Your task to perform on an android device: turn off picture-in-picture Image 0: 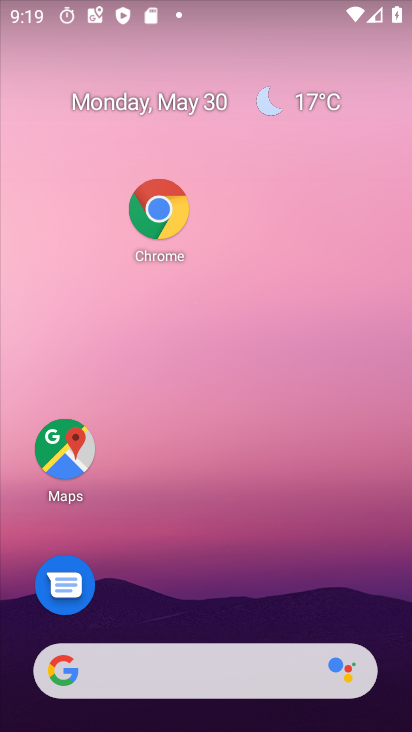
Step 0: drag from (258, 566) to (407, 34)
Your task to perform on an android device: turn off picture-in-picture Image 1: 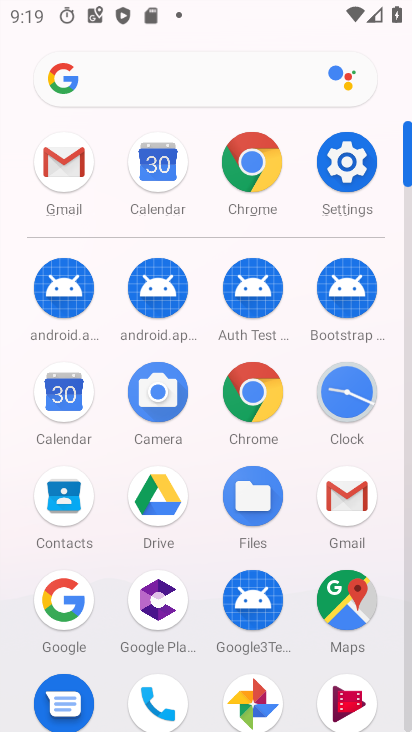
Step 1: click (345, 167)
Your task to perform on an android device: turn off picture-in-picture Image 2: 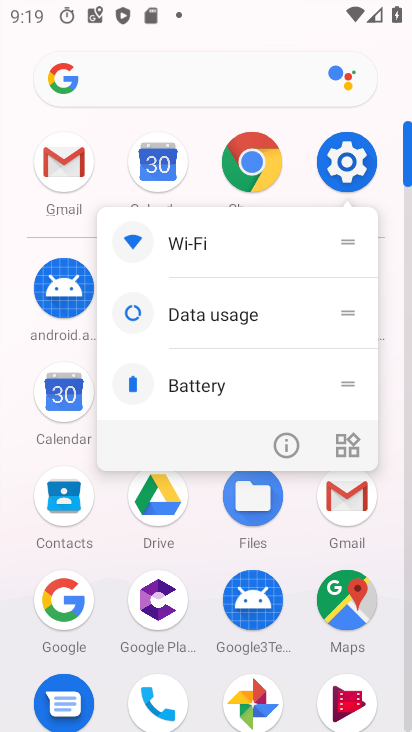
Step 2: click (290, 455)
Your task to perform on an android device: turn off picture-in-picture Image 3: 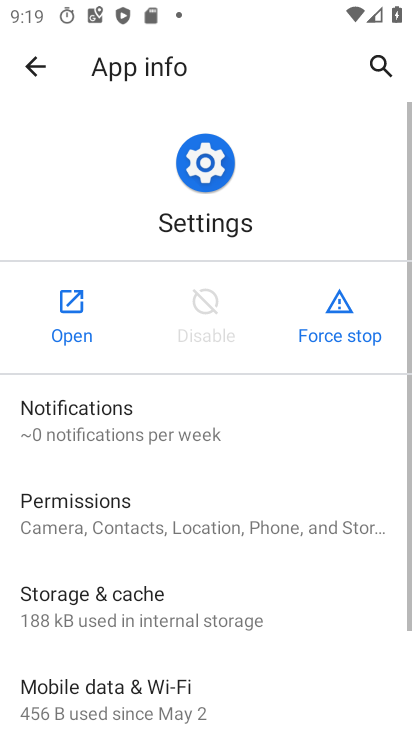
Step 3: click (66, 286)
Your task to perform on an android device: turn off picture-in-picture Image 4: 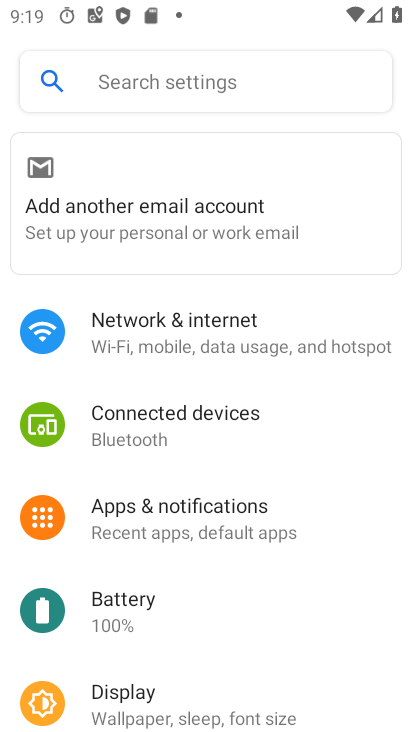
Step 4: drag from (306, 377) to (375, 106)
Your task to perform on an android device: turn off picture-in-picture Image 5: 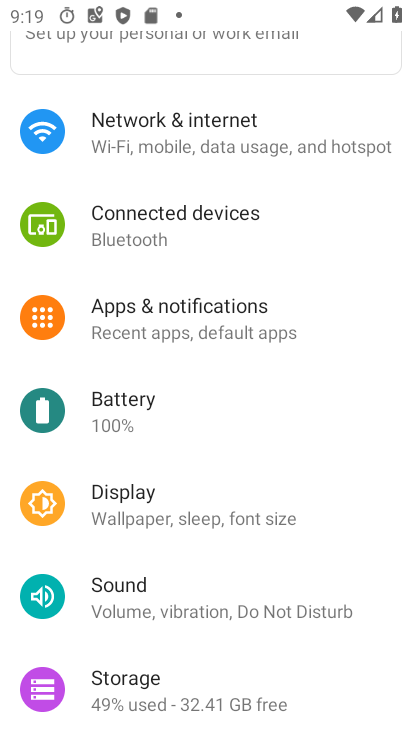
Step 5: click (191, 318)
Your task to perform on an android device: turn off picture-in-picture Image 6: 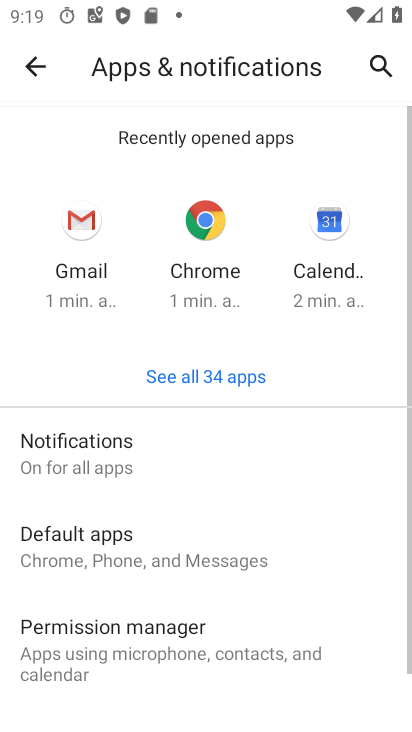
Step 6: drag from (242, 415) to (325, 152)
Your task to perform on an android device: turn off picture-in-picture Image 7: 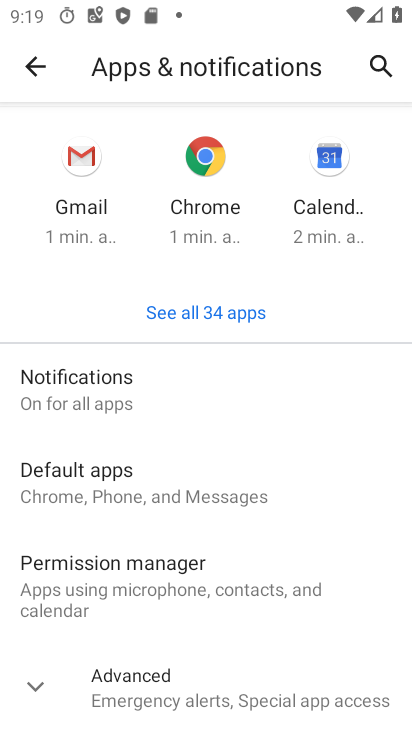
Step 7: drag from (137, 697) to (383, 42)
Your task to perform on an android device: turn off picture-in-picture Image 8: 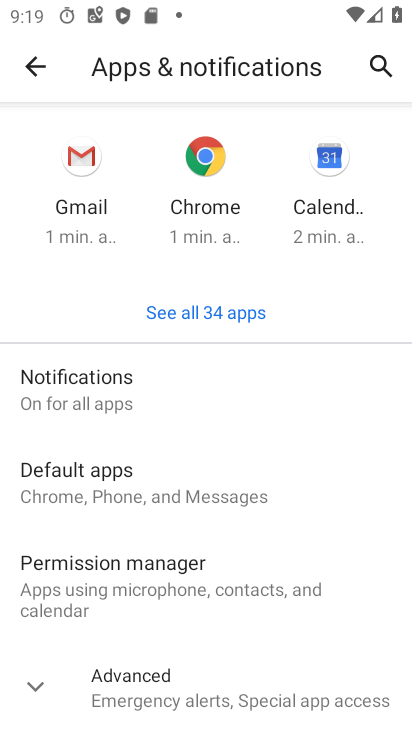
Step 8: drag from (191, 584) to (276, 234)
Your task to perform on an android device: turn off picture-in-picture Image 9: 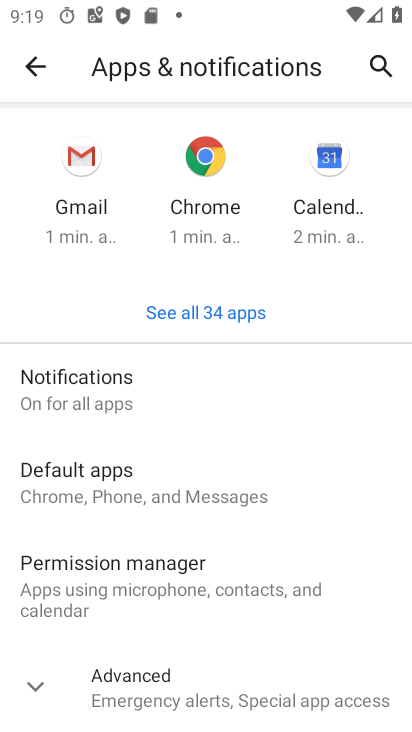
Step 9: click (157, 678)
Your task to perform on an android device: turn off picture-in-picture Image 10: 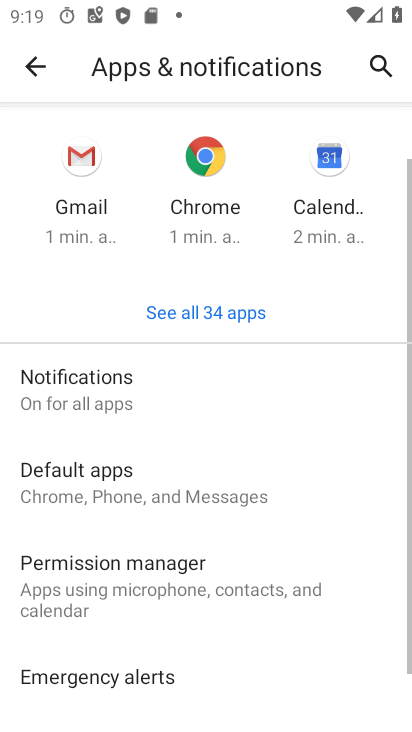
Step 10: drag from (210, 455) to (408, 9)
Your task to perform on an android device: turn off picture-in-picture Image 11: 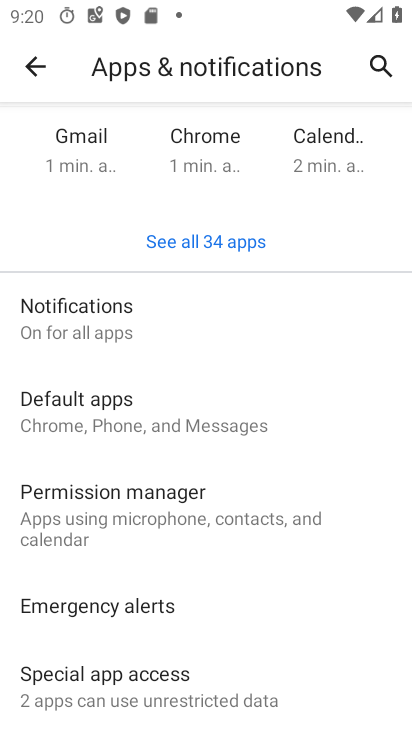
Step 11: click (121, 698)
Your task to perform on an android device: turn off picture-in-picture Image 12: 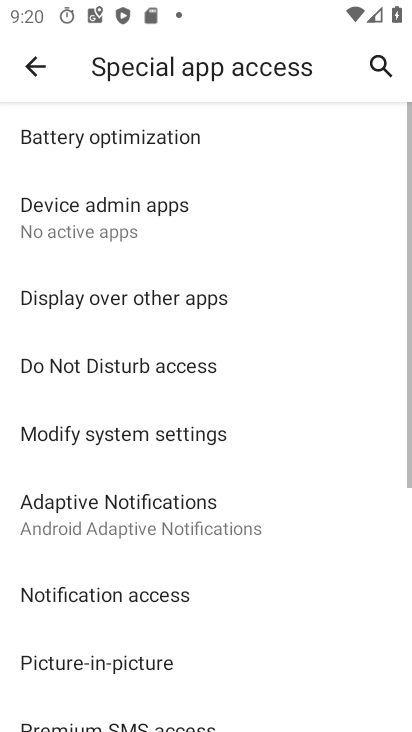
Step 12: drag from (209, 657) to (296, 305)
Your task to perform on an android device: turn off picture-in-picture Image 13: 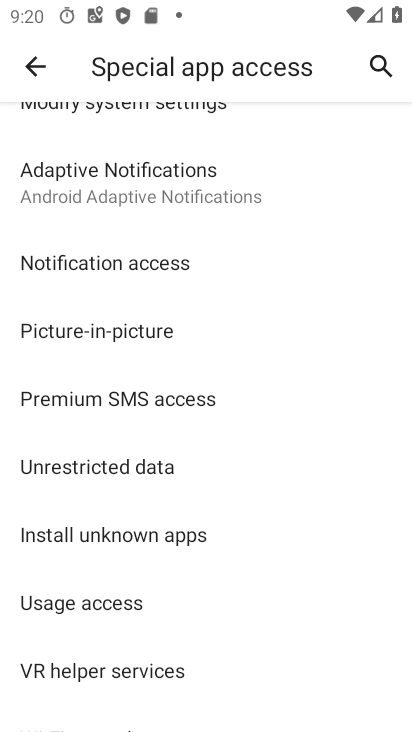
Step 13: click (144, 332)
Your task to perform on an android device: turn off picture-in-picture Image 14: 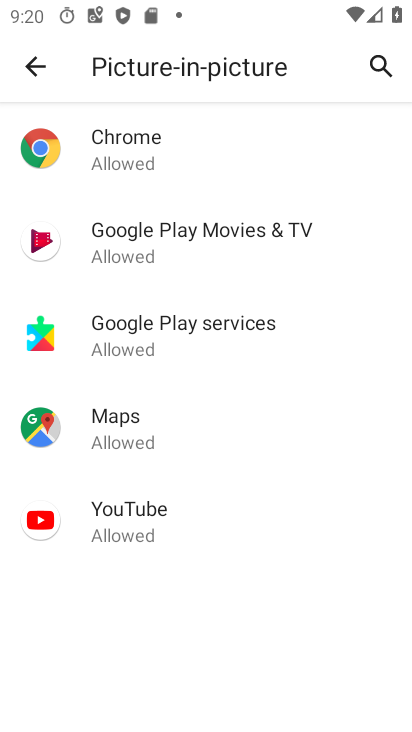
Step 14: click (90, 149)
Your task to perform on an android device: turn off picture-in-picture Image 15: 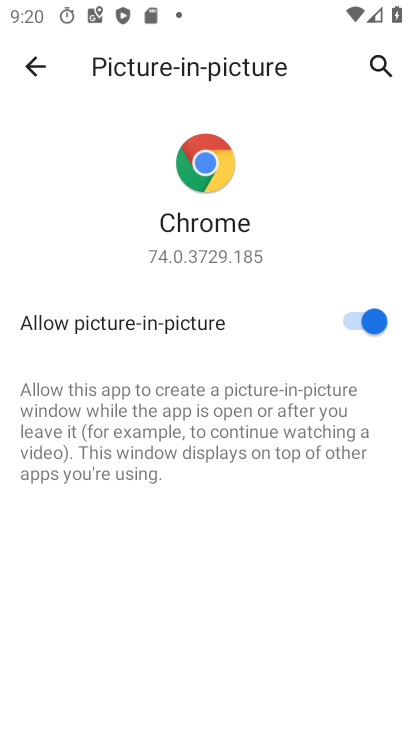
Step 15: click (348, 308)
Your task to perform on an android device: turn off picture-in-picture Image 16: 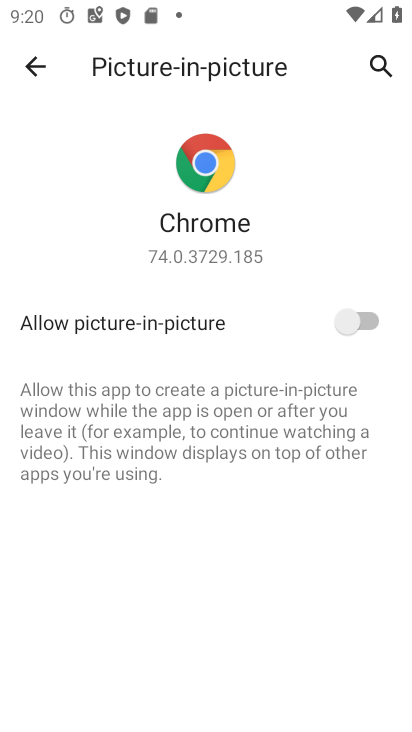
Step 16: task complete